Your task to perform on an android device: turn off location Image 0: 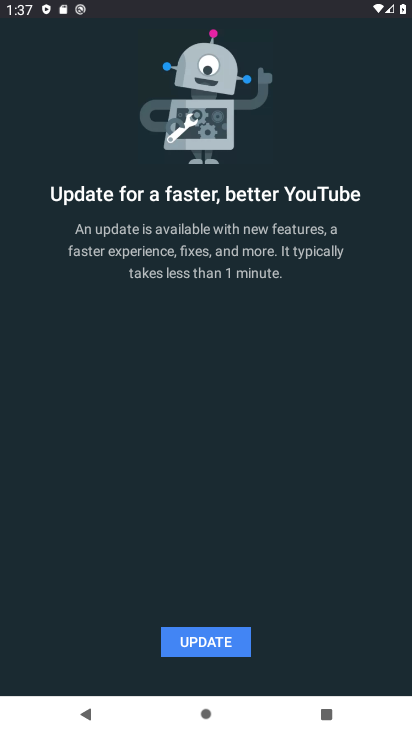
Step 0: press home button
Your task to perform on an android device: turn off location Image 1: 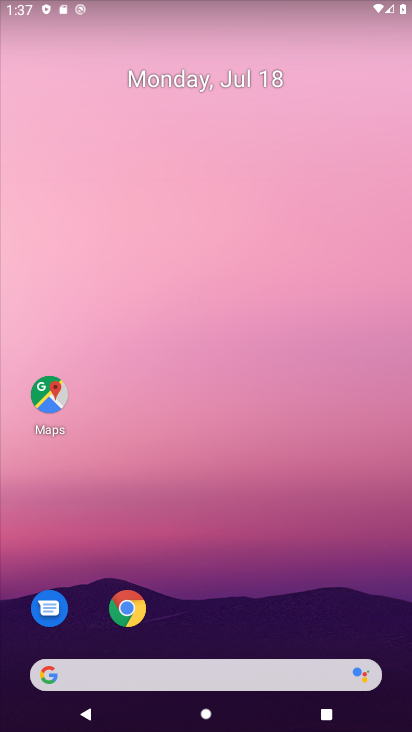
Step 1: drag from (197, 669) to (144, 183)
Your task to perform on an android device: turn off location Image 2: 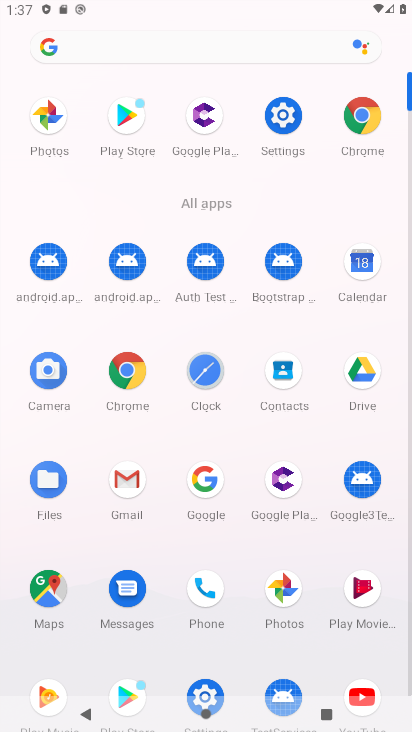
Step 2: click (292, 114)
Your task to perform on an android device: turn off location Image 3: 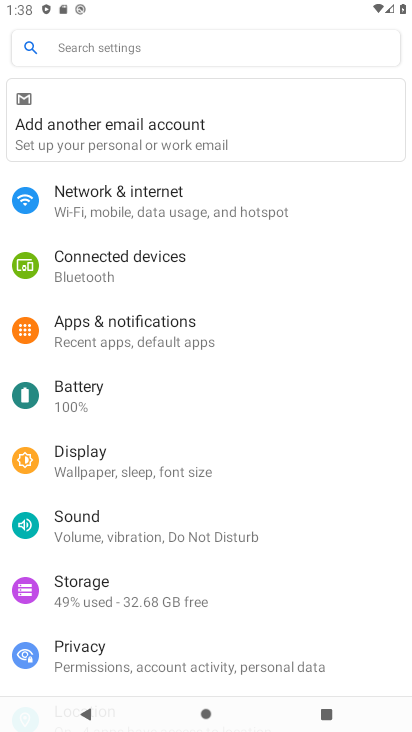
Step 3: drag from (142, 591) to (93, 114)
Your task to perform on an android device: turn off location Image 4: 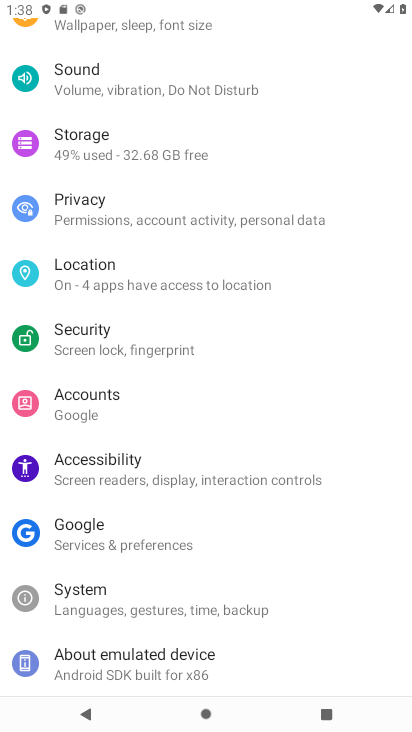
Step 4: click (94, 272)
Your task to perform on an android device: turn off location Image 5: 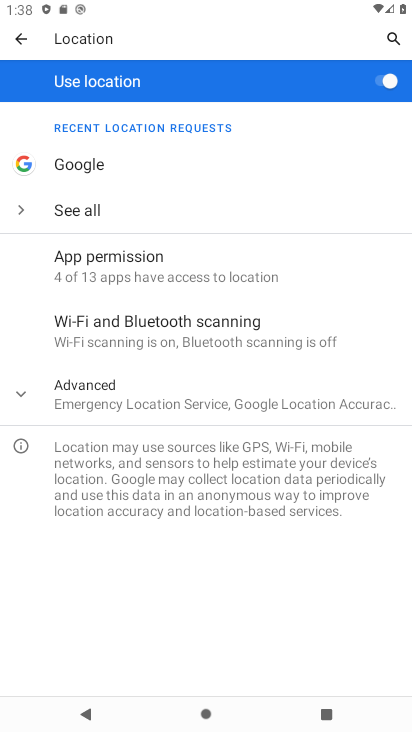
Step 5: click (384, 79)
Your task to perform on an android device: turn off location Image 6: 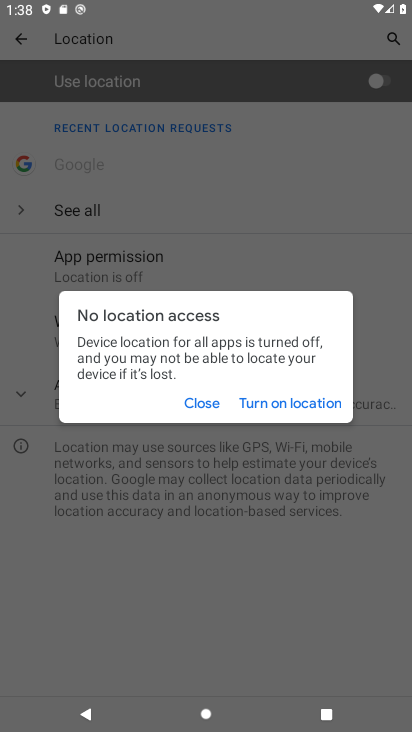
Step 6: click (195, 413)
Your task to perform on an android device: turn off location Image 7: 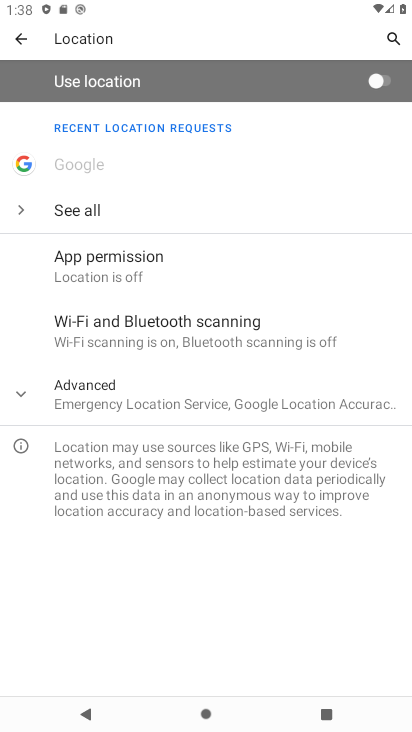
Step 7: task complete